Your task to perform on an android device: turn on airplane mode Image 0: 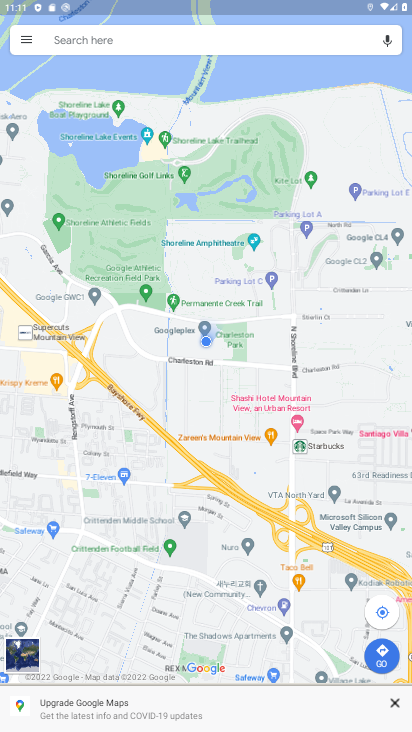
Step 0: press home button
Your task to perform on an android device: turn on airplane mode Image 1: 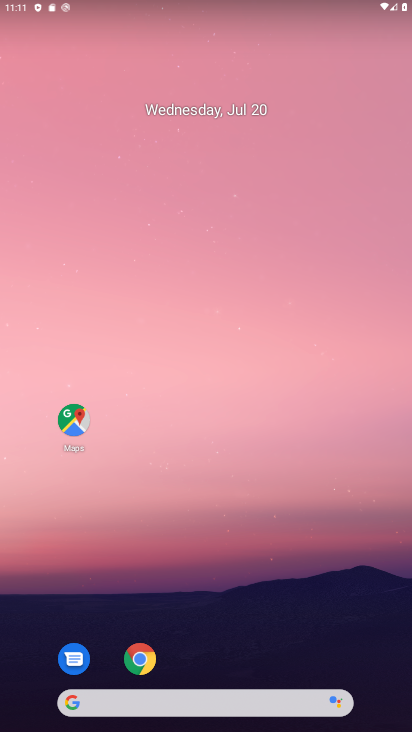
Step 1: drag from (238, 534) to (244, 165)
Your task to perform on an android device: turn on airplane mode Image 2: 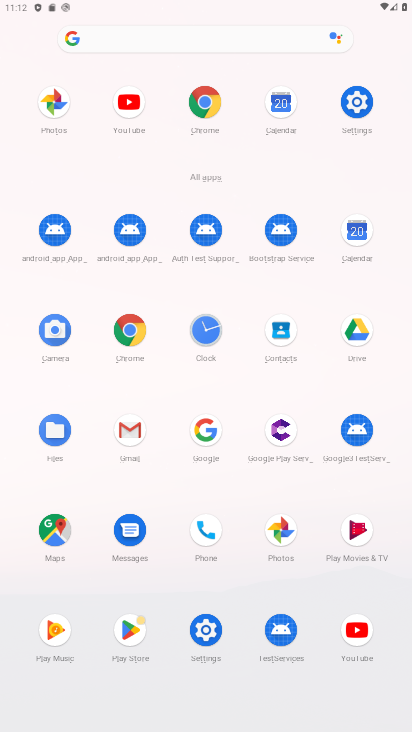
Step 2: click (371, 105)
Your task to perform on an android device: turn on airplane mode Image 3: 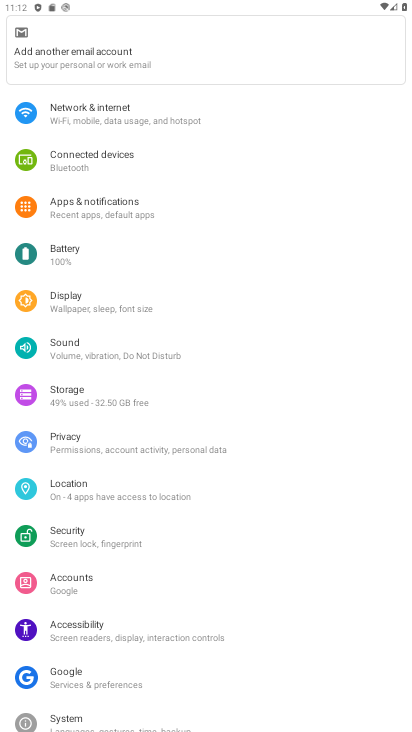
Step 3: click (130, 114)
Your task to perform on an android device: turn on airplane mode Image 4: 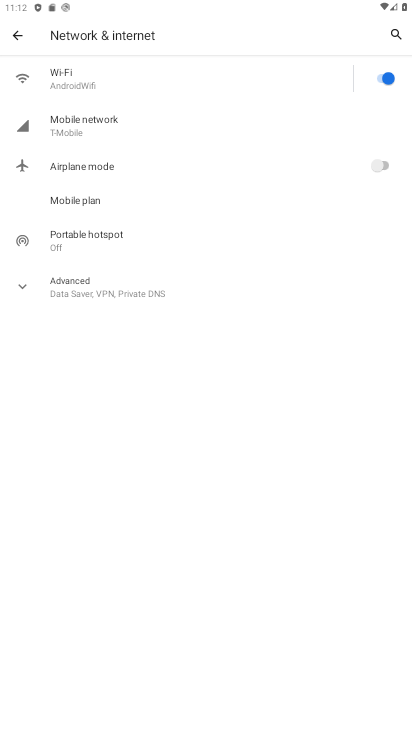
Step 4: click (354, 165)
Your task to perform on an android device: turn on airplane mode Image 5: 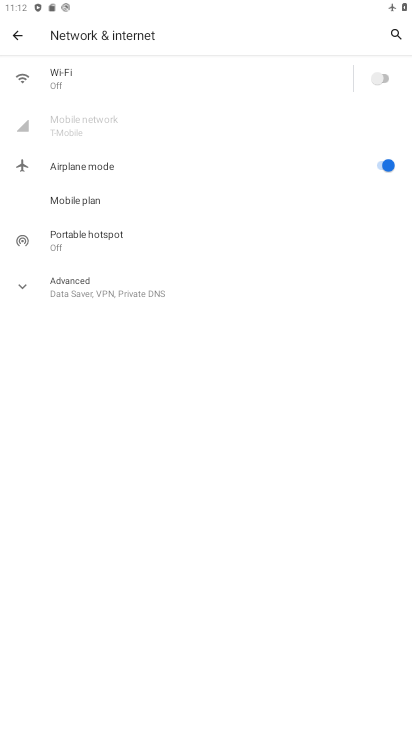
Step 5: task complete